Your task to perform on an android device: open app "Google Keep" Image 0: 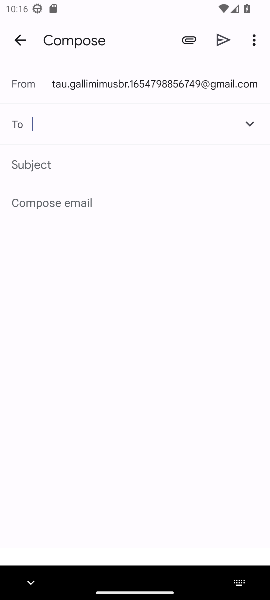
Step 0: press home button
Your task to perform on an android device: open app "Google Keep" Image 1: 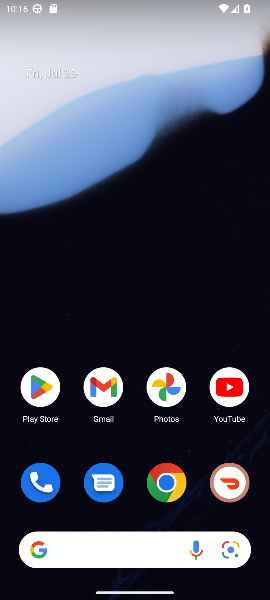
Step 1: click (34, 386)
Your task to perform on an android device: open app "Google Keep" Image 2: 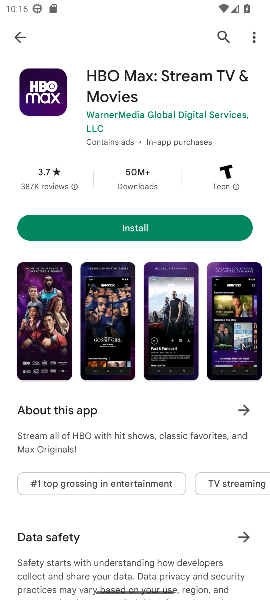
Step 2: click (223, 34)
Your task to perform on an android device: open app "Google Keep" Image 3: 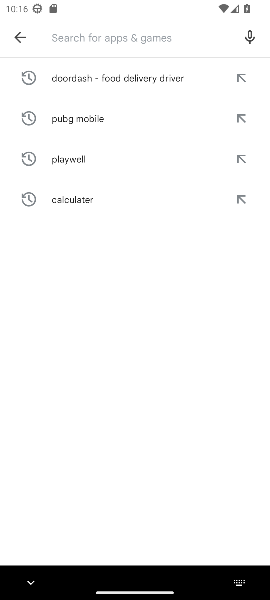
Step 3: type "Google Keep"
Your task to perform on an android device: open app "Google Keep" Image 4: 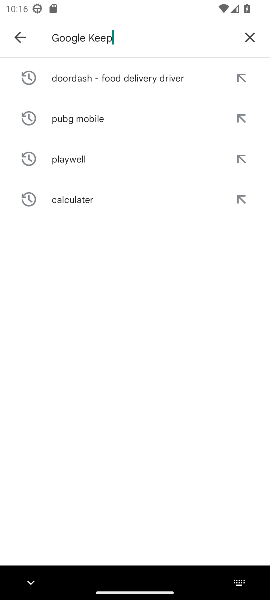
Step 4: type ""
Your task to perform on an android device: open app "Google Keep" Image 5: 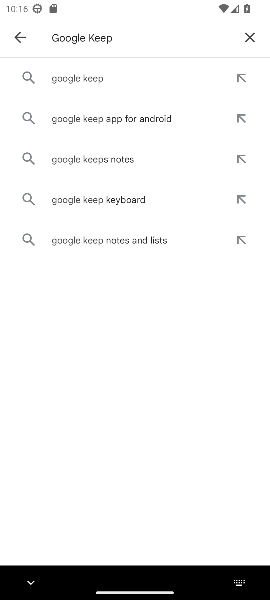
Step 5: click (85, 81)
Your task to perform on an android device: open app "Google Keep" Image 6: 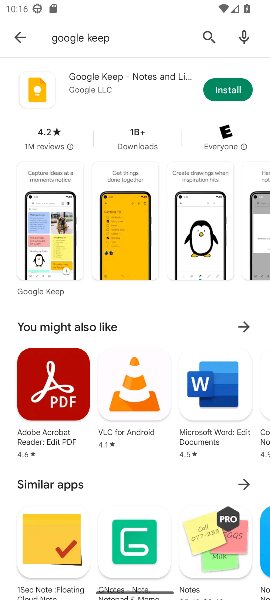
Step 6: task complete